Your task to perform on an android device: How much does the TCL TV cost? Image 0: 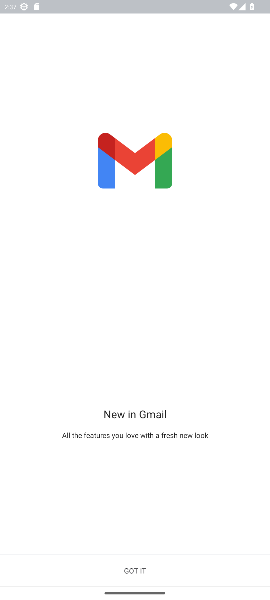
Step 0: press home button
Your task to perform on an android device: How much does the TCL TV cost? Image 1: 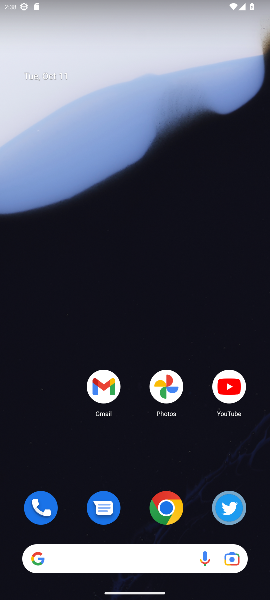
Step 1: click (164, 510)
Your task to perform on an android device: How much does the TCL TV cost? Image 2: 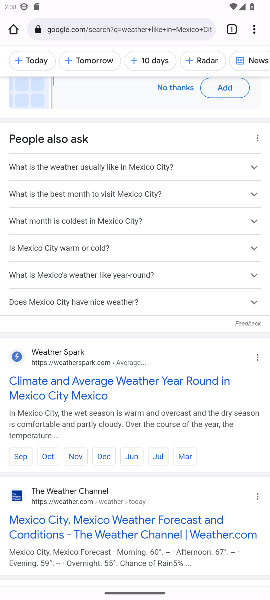
Step 2: click (72, 25)
Your task to perform on an android device: How much does the TCL TV cost? Image 3: 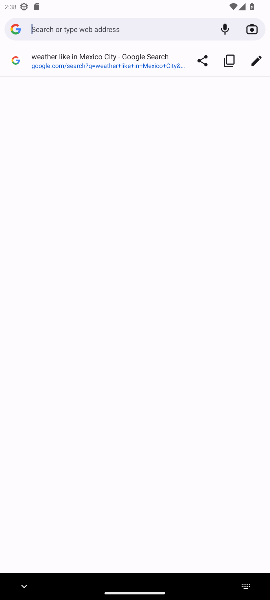
Step 3: type "TCL TV cost"
Your task to perform on an android device: How much does the TCL TV cost? Image 4: 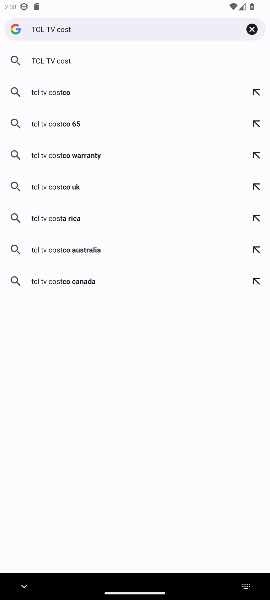
Step 4: press enter
Your task to perform on an android device: How much does the TCL TV cost? Image 5: 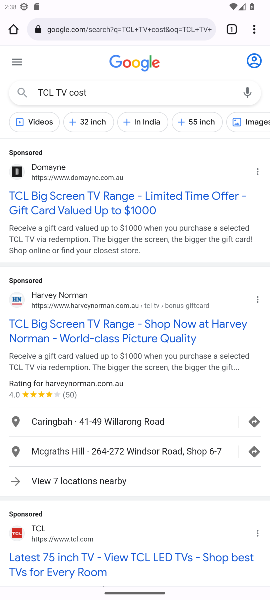
Step 5: click (102, 554)
Your task to perform on an android device: How much does the TCL TV cost? Image 6: 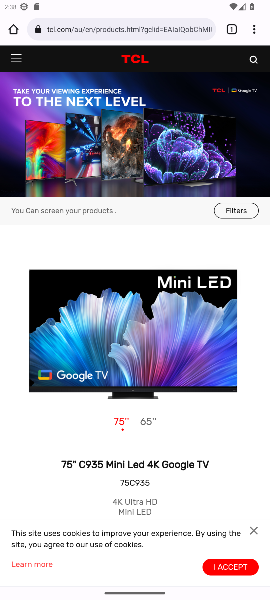
Step 6: drag from (83, 512) to (61, 270)
Your task to perform on an android device: How much does the TCL TV cost? Image 7: 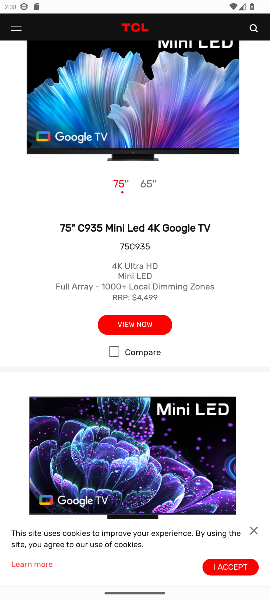
Step 7: drag from (81, 358) to (65, 117)
Your task to perform on an android device: How much does the TCL TV cost? Image 8: 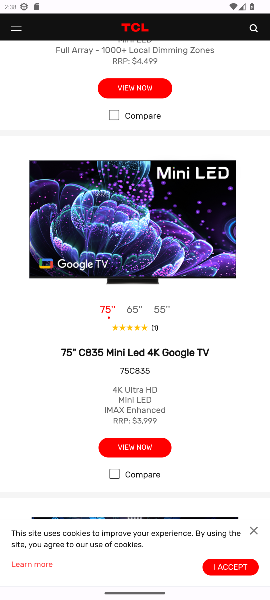
Step 8: drag from (50, 383) to (0, 158)
Your task to perform on an android device: How much does the TCL TV cost? Image 9: 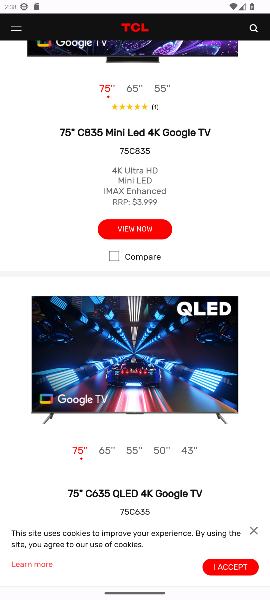
Step 9: click (132, 233)
Your task to perform on an android device: How much does the TCL TV cost? Image 10: 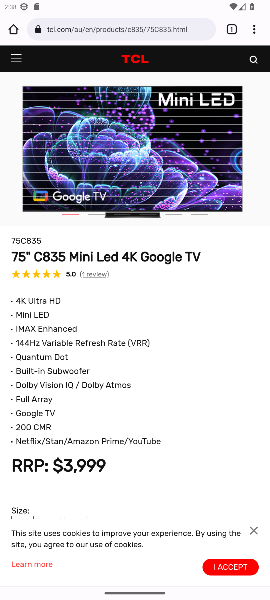
Step 10: task complete